Your task to perform on an android device: Open battery settings Image 0: 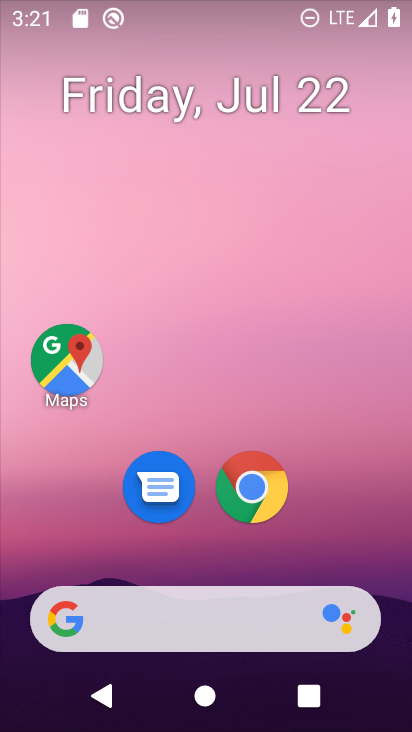
Step 0: drag from (131, 542) to (230, 19)
Your task to perform on an android device: Open battery settings Image 1: 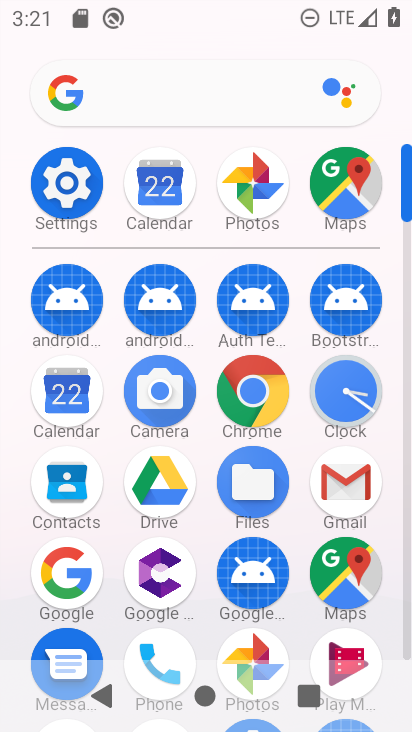
Step 1: click (65, 181)
Your task to perform on an android device: Open battery settings Image 2: 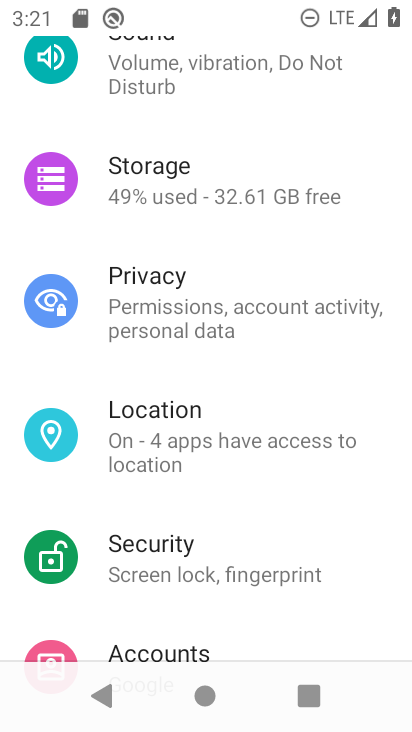
Step 2: drag from (223, 193) to (284, 630)
Your task to perform on an android device: Open battery settings Image 3: 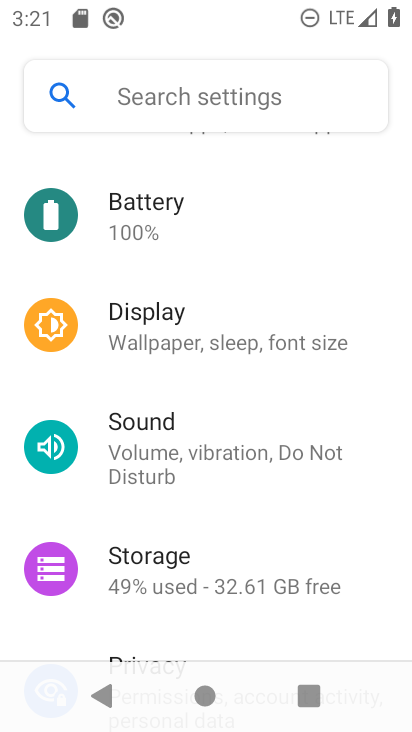
Step 3: click (173, 222)
Your task to perform on an android device: Open battery settings Image 4: 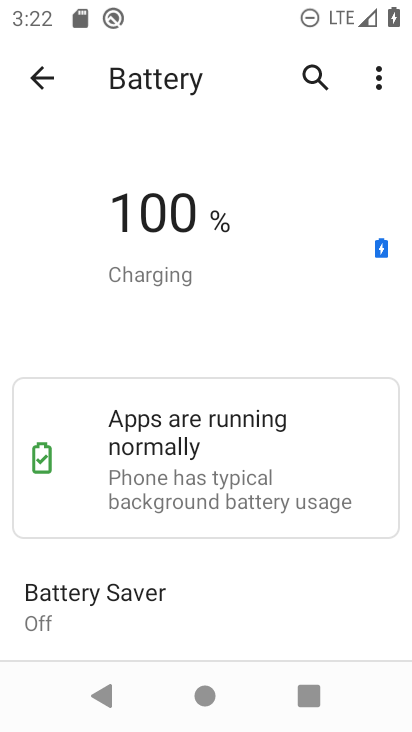
Step 4: task complete